Your task to perform on an android device: Set the phone to "Do not disturb". Image 0: 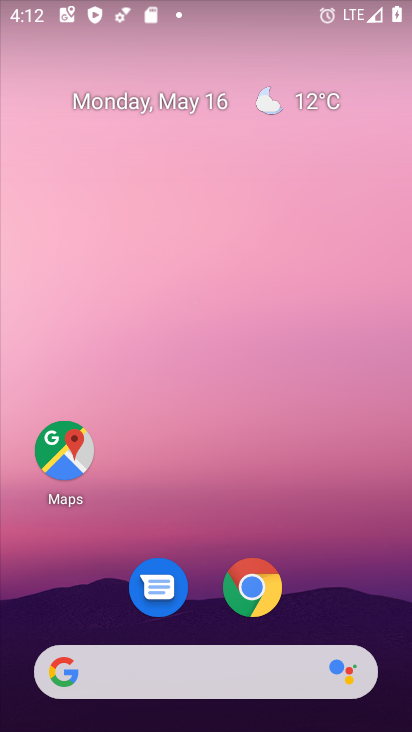
Step 0: click (327, 248)
Your task to perform on an android device: Set the phone to "Do not disturb". Image 1: 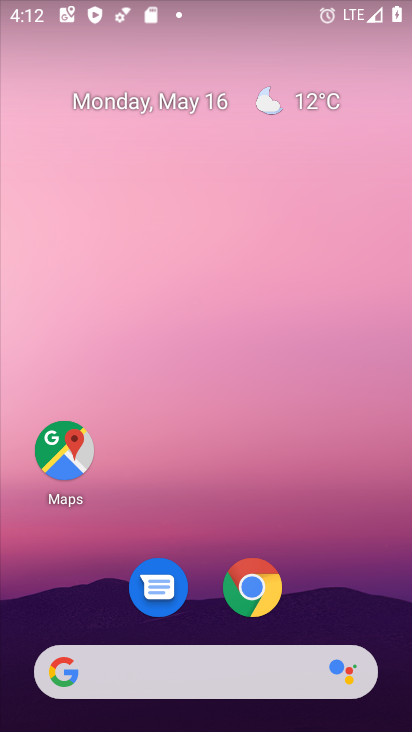
Step 1: drag from (380, 636) to (356, 285)
Your task to perform on an android device: Set the phone to "Do not disturb". Image 2: 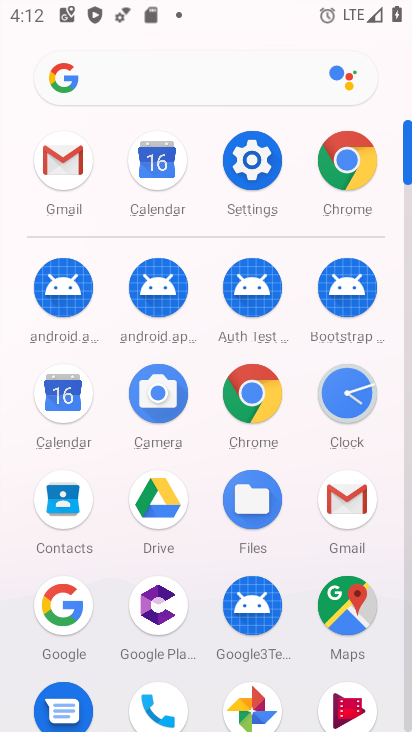
Step 2: click (248, 159)
Your task to perform on an android device: Set the phone to "Do not disturb". Image 3: 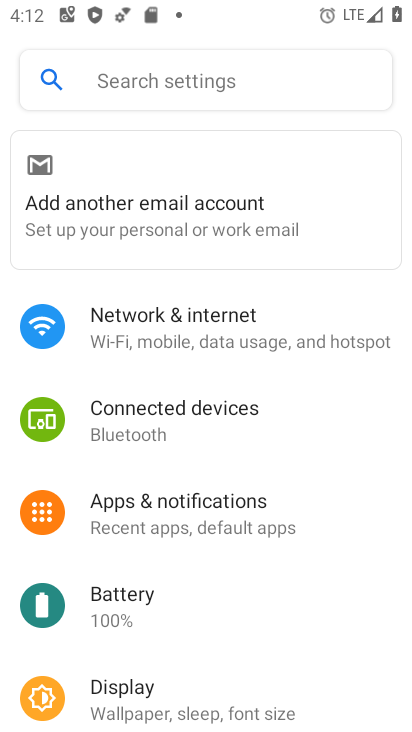
Step 3: click (132, 707)
Your task to perform on an android device: Set the phone to "Do not disturb". Image 4: 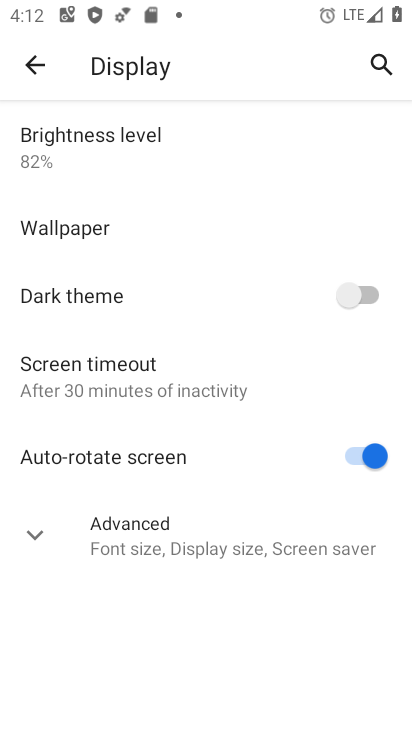
Step 4: drag from (165, 620) to (181, 321)
Your task to perform on an android device: Set the phone to "Do not disturb". Image 5: 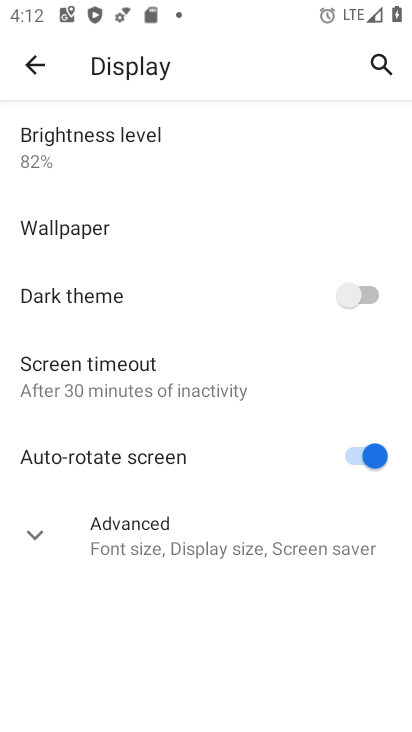
Step 5: click (33, 538)
Your task to perform on an android device: Set the phone to "Do not disturb". Image 6: 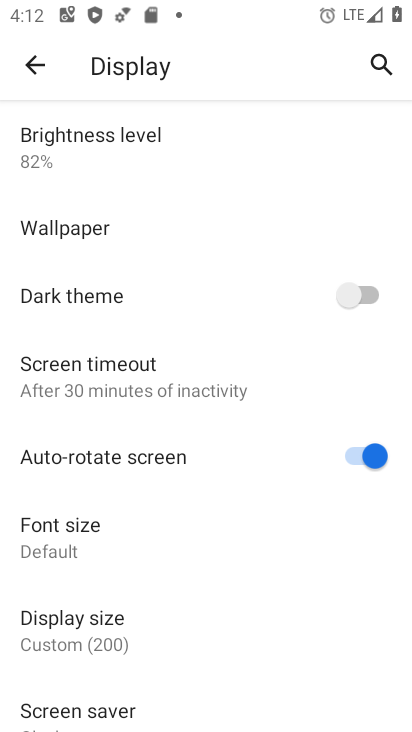
Step 6: click (8, 71)
Your task to perform on an android device: Set the phone to "Do not disturb". Image 7: 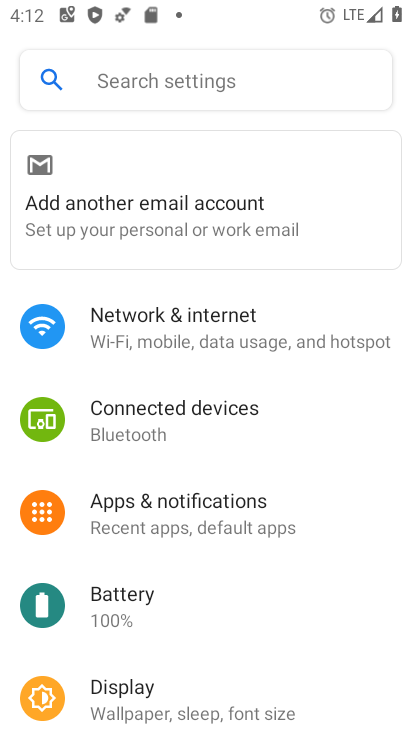
Step 7: click (146, 702)
Your task to perform on an android device: Set the phone to "Do not disturb". Image 8: 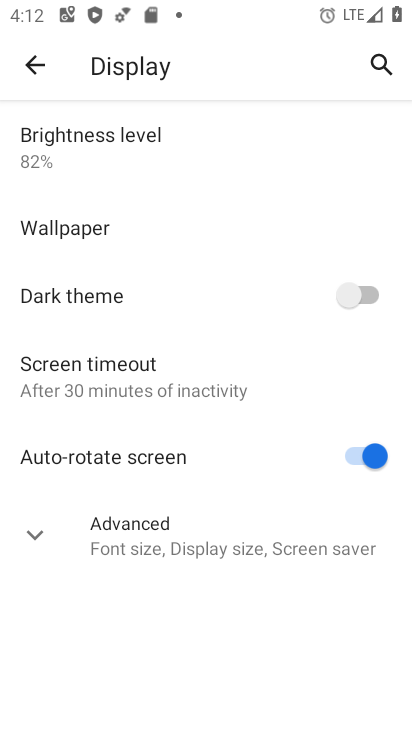
Step 8: press back button
Your task to perform on an android device: Set the phone to "Do not disturb". Image 9: 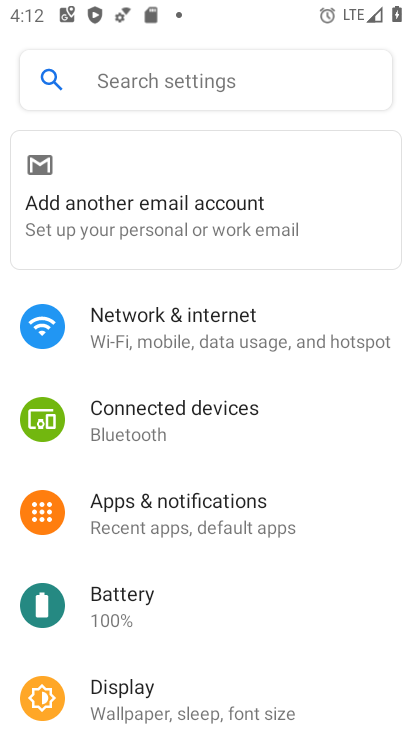
Step 9: drag from (258, 623) to (255, 398)
Your task to perform on an android device: Set the phone to "Do not disturb". Image 10: 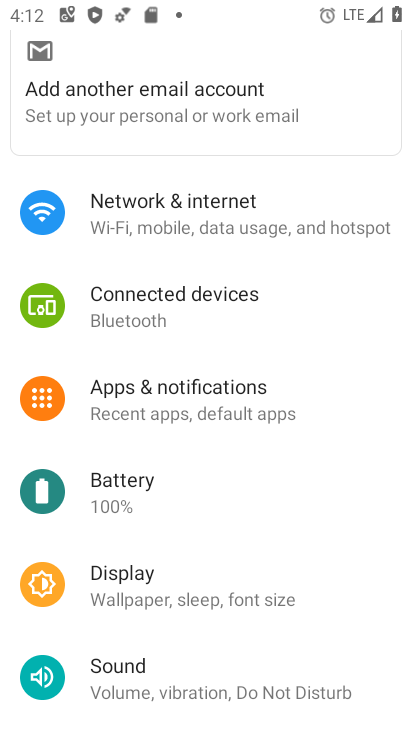
Step 10: click (140, 675)
Your task to perform on an android device: Set the phone to "Do not disturb". Image 11: 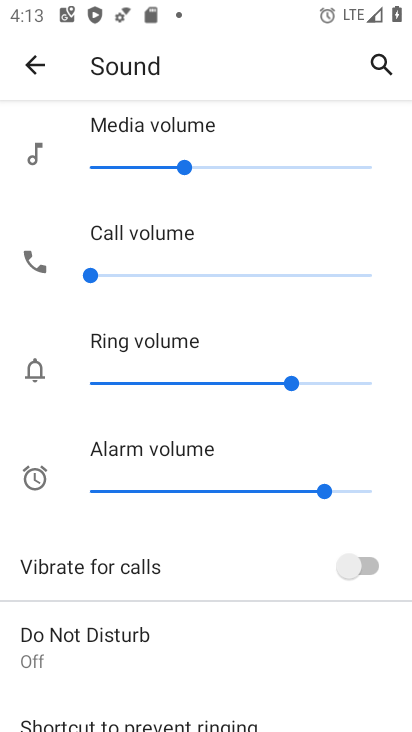
Step 11: click (35, 641)
Your task to perform on an android device: Set the phone to "Do not disturb". Image 12: 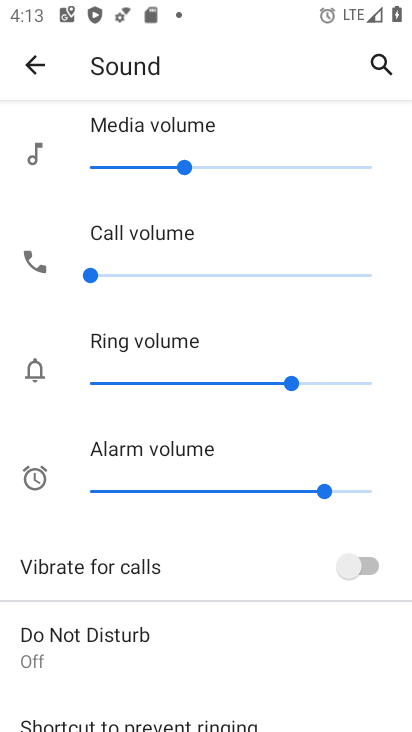
Step 12: click (66, 634)
Your task to perform on an android device: Set the phone to "Do not disturb". Image 13: 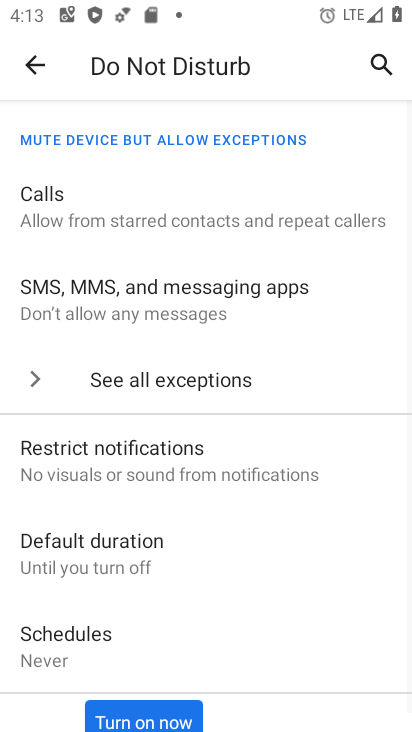
Step 13: click (118, 728)
Your task to perform on an android device: Set the phone to "Do not disturb". Image 14: 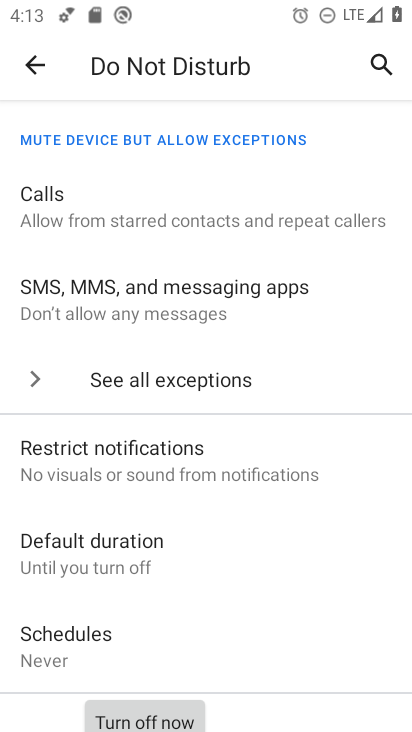
Step 14: task complete